Your task to perform on an android device: allow notifications from all sites in the chrome app Image 0: 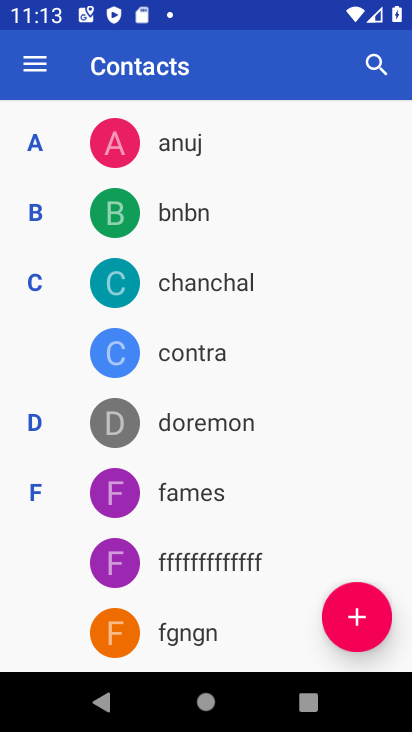
Step 0: press home button
Your task to perform on an android device: allow notifications from all sites in the chrome app Image 1: 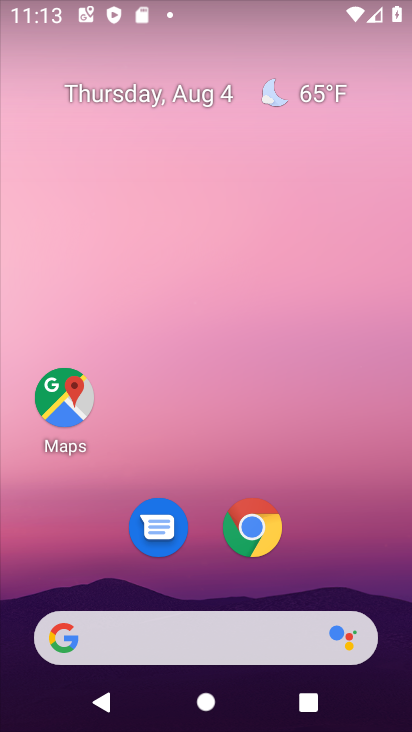
Step 1: click (248, 514)
Your task to perform on an android device: allow notifications from all sites in the chrome app Image 2: 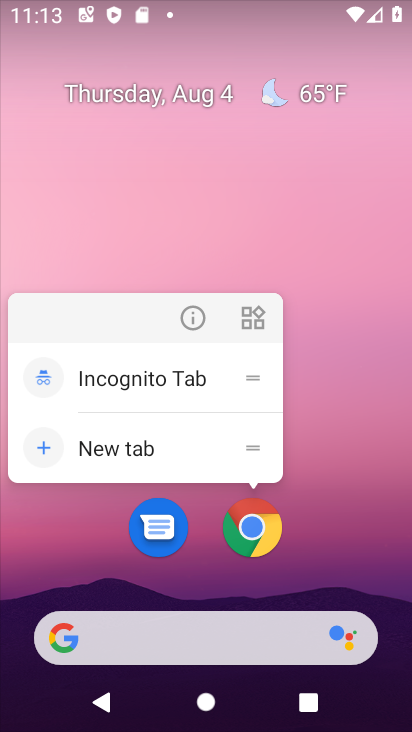
Step 2: click (186, 307)
Your task to perform on an android device: allow notifications from all sites in the chrome app Image 3: 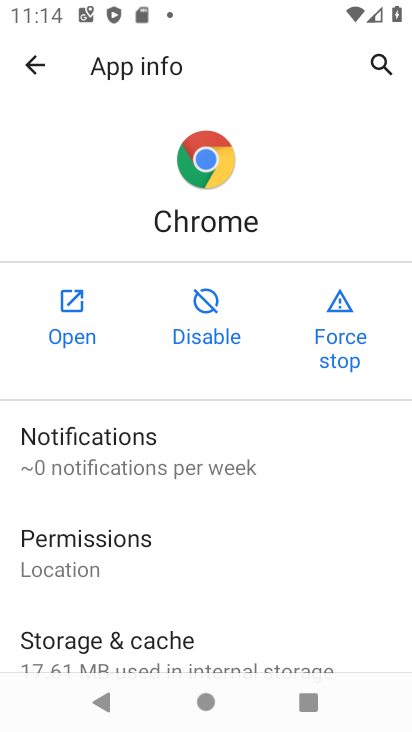
Step 3: click (262, 454)
Your task to perform on an android device: allow notifications from all sites in the chrome app Image 4: 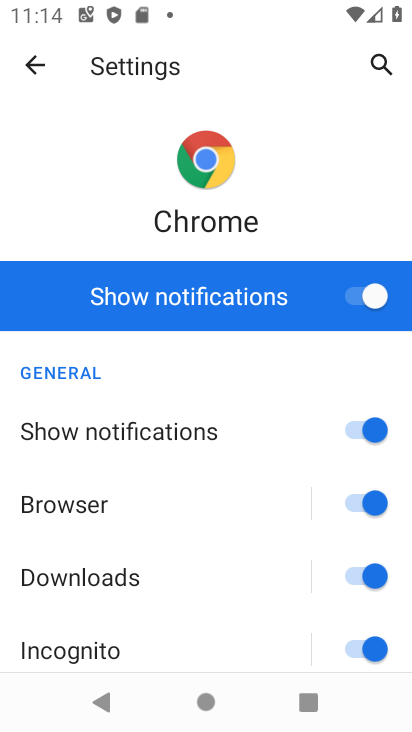
Step 4: task complete